Your task to perform on an android device: Open Wikipedia Image 0: 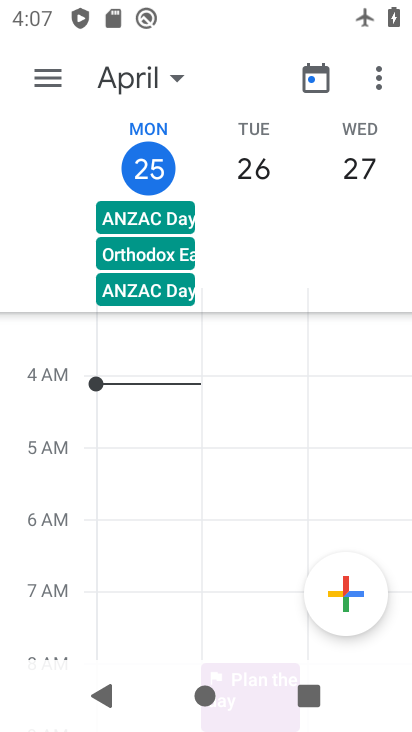
Step 0: press home button
Your task to perform on an android device: Open Wikipedia Image 1: 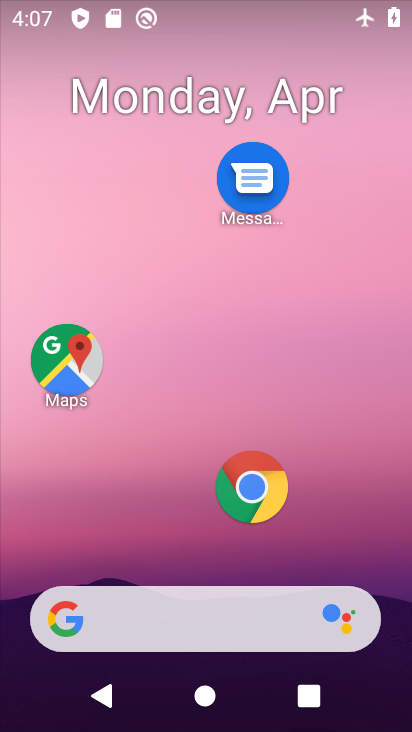
Step 1: click (275, 481)
Your task to perform on an android device: Open Wikipedia Image 2: 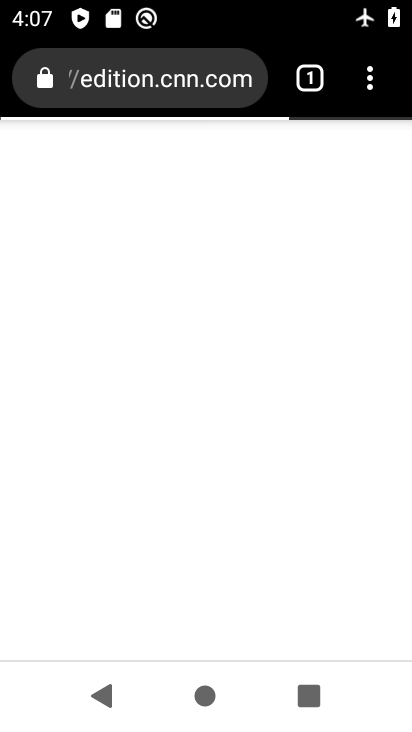
Step 2: click (179, 73)
Your task to perform on an android device: Open Wikipedia Image 3: 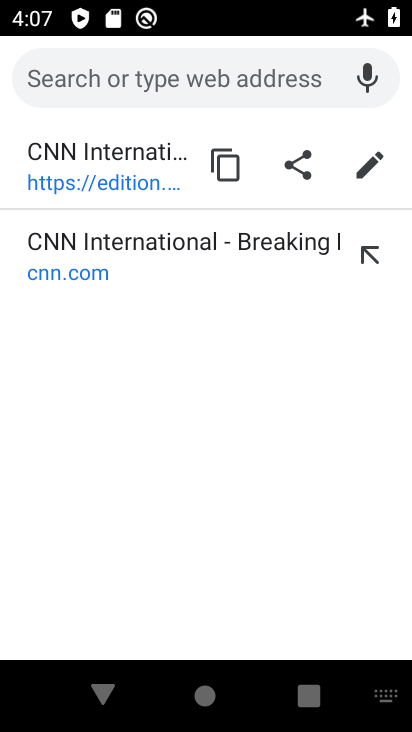
Step 3: type "wikipedia.org"
Your task to perform on an android device: Open Wikipedia Image 4: 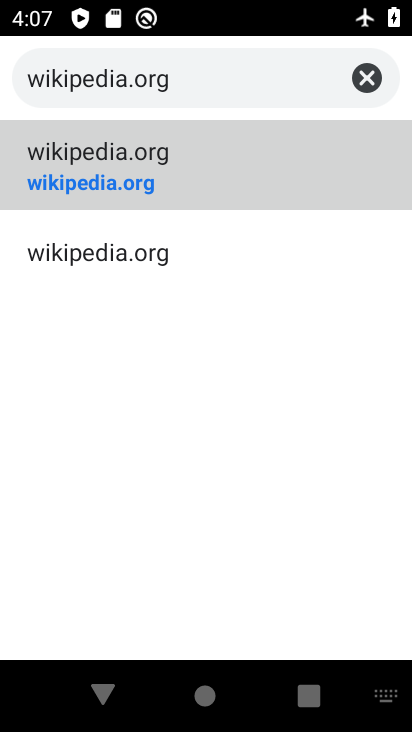
Step 4: click (217, 178)
Your task to perform on an android device: Open Wikipedia Image 5: 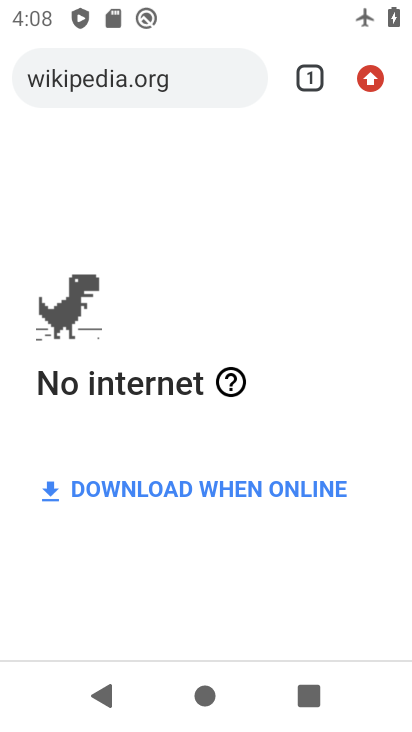
Step 5: task complete